Your task to perform on an android device: add a contact in the contacts app Image 0: 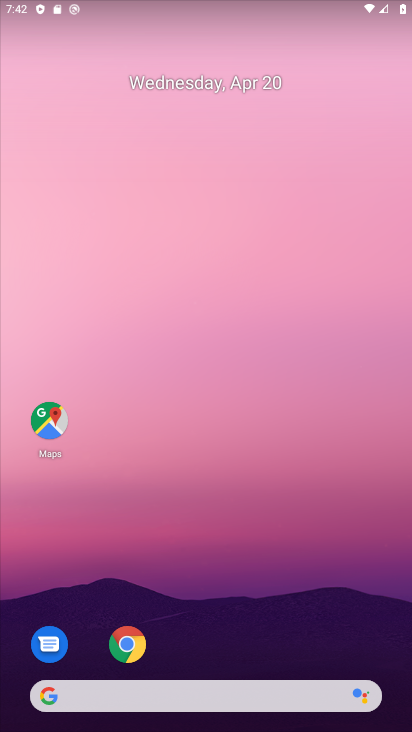
Step 0: drag from (326, 621) to (266, 85)
Your task to perform on an android device: add a contact in the contacts app Image 1: 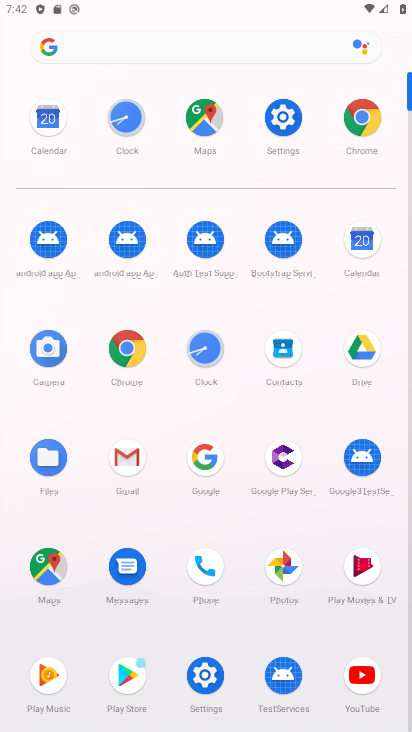
Step 1: click (284, 344)
Your task to perform on an android device: add a contact in the contacts app Image 2: 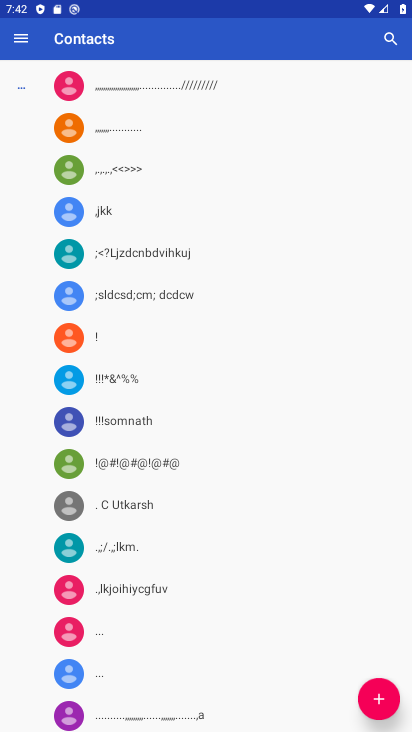
Step 2: click (374, 697)
Your task to perform on an android device: add a contact in the contacts app Image 3: 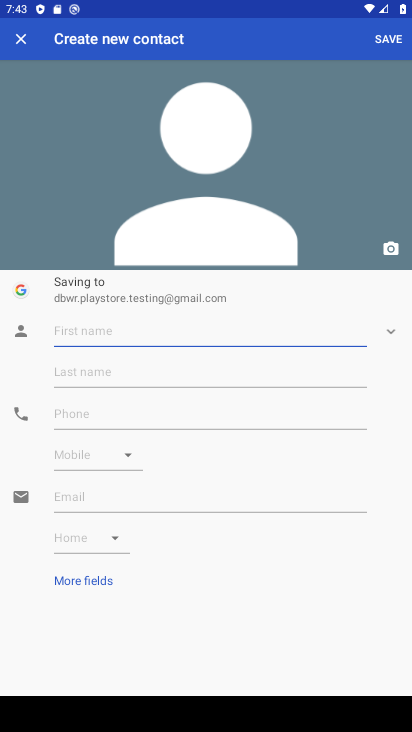
Step 3: type "ashu"
Your task to perform on an android device: add a contact in the contacts app Image 4: 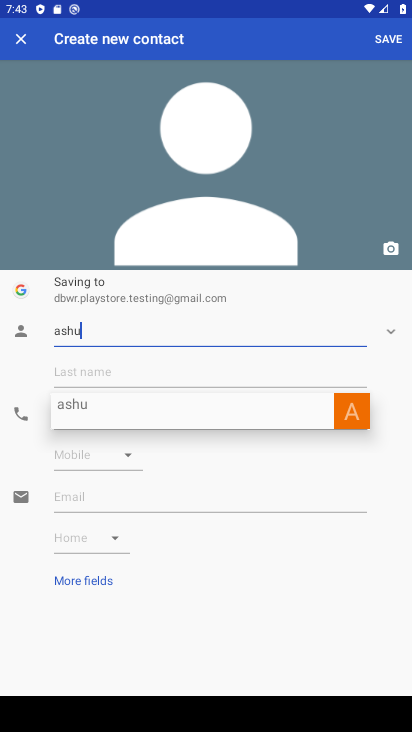
Step 4: type "anishka"
Your task to perform on an android device: add a contact in the contacts app Image 5: 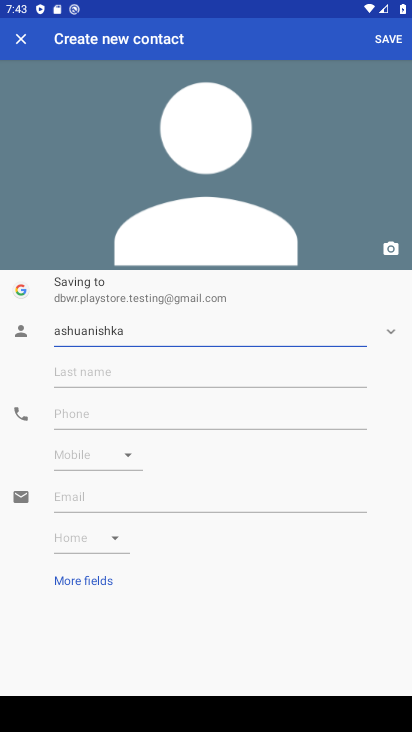
Step 5: click (381, 25)
Your task to perform on an android device: add a contact in the contacts app Image 6: 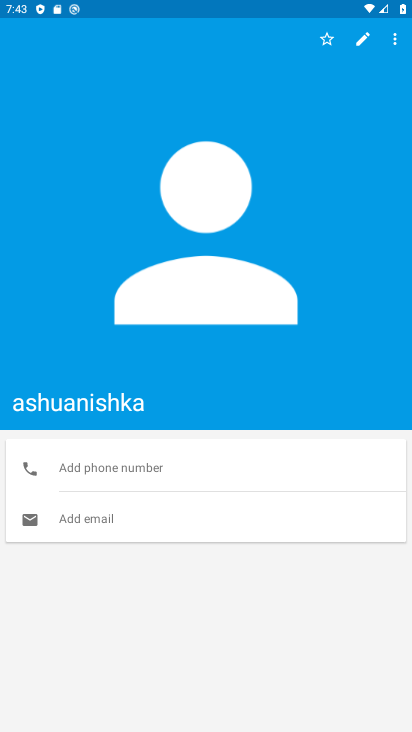
Step 6: task complete